Your task to perform on an android device: Open Android settings Image 0: 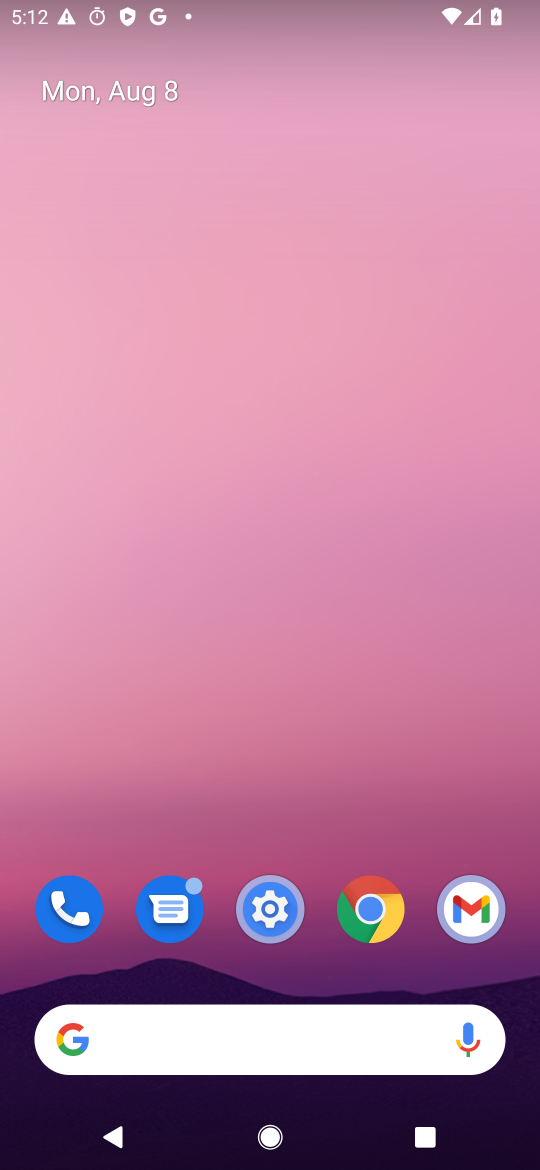
Step 0: click (275, 901)
Your task to perform on an android device: Open Android settings Image 1: 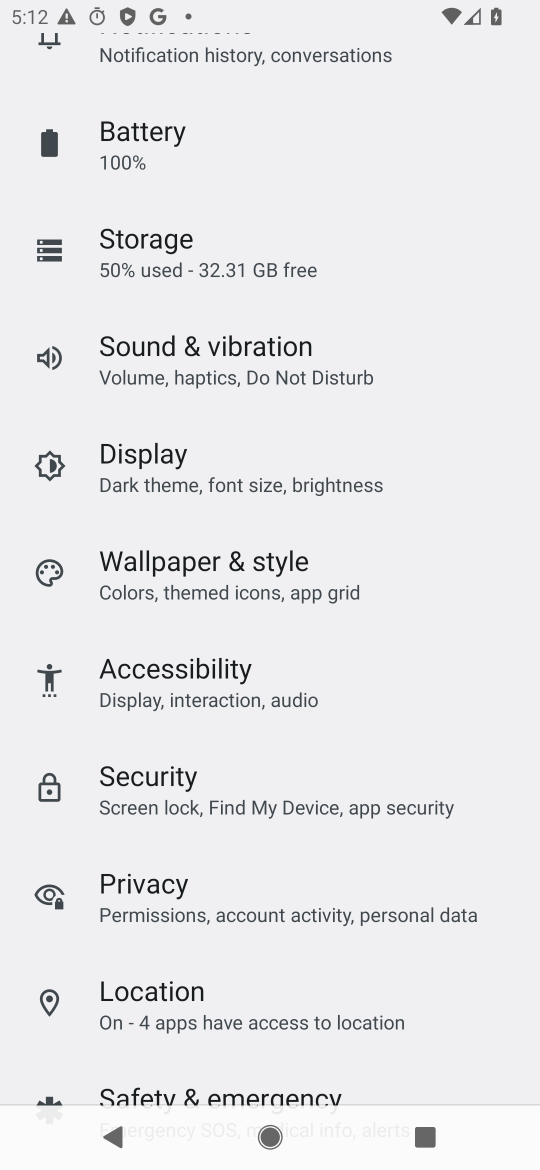
Step 1: task complete